Your task to perform on an android device: turn off picture-in-picture Image 0: 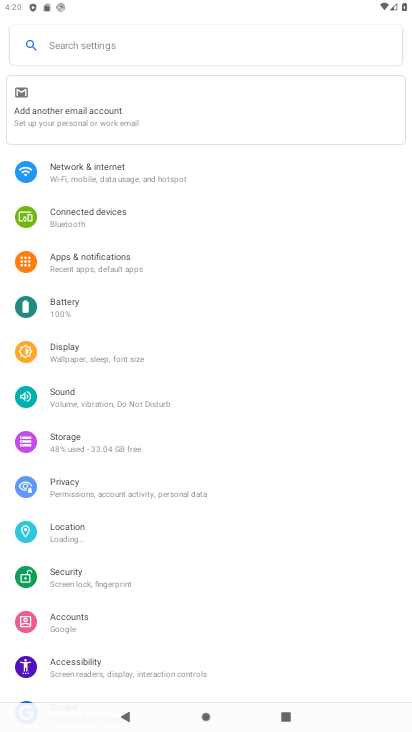
Step 0: press home button
Your task to perform on an android device: turn off picture-in-picture Image 1: 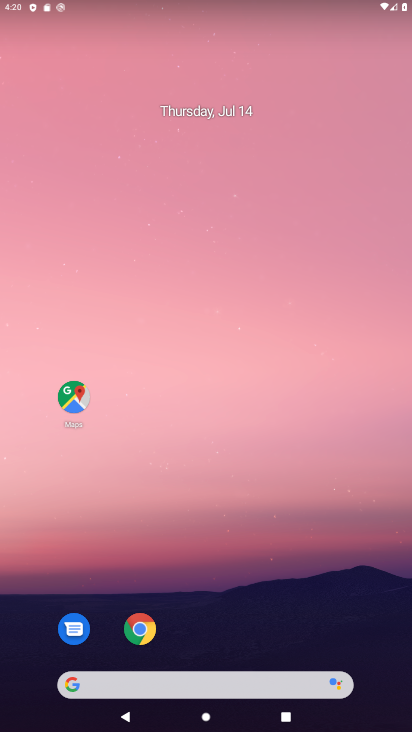
Step 1: drag from (253, 645) to (291, 144)
Your task to perform on an android device: turn off picture-in-picture Image 2: 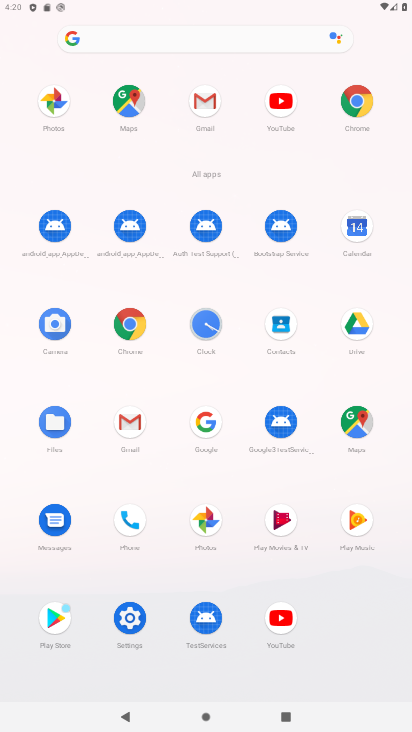
Step 2: click (132, 635)
Your task to perform on an android device: turn off picture-in-picture Image 3: 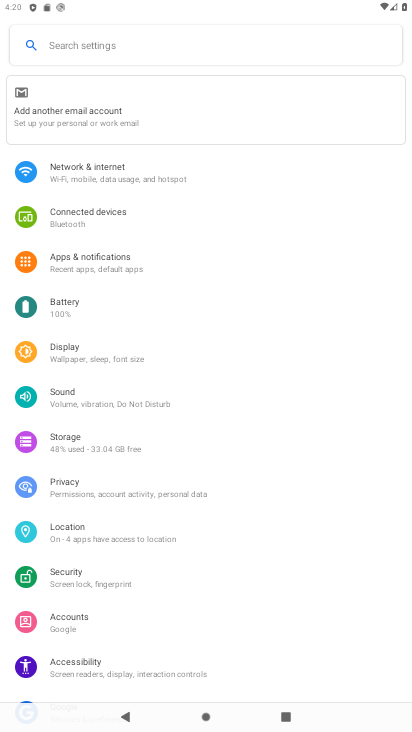
Step 3: click (119, 268)
Your task to perform on an android device: turn off picture-in-picture Image 4: 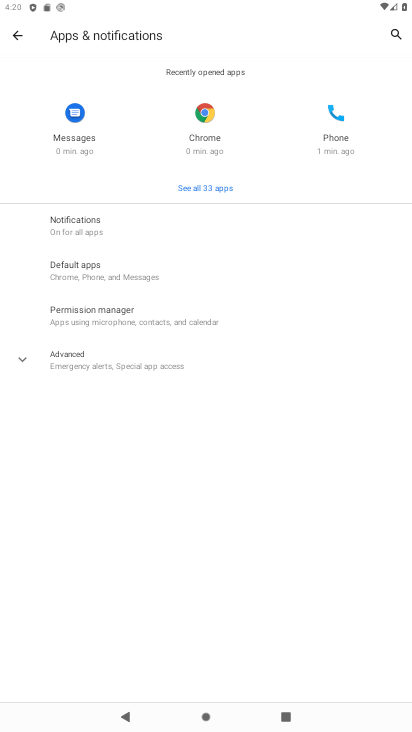
Step 4: click (95, 359)
Your task to perform on an android device: turn off picture-in-picture Image 5: 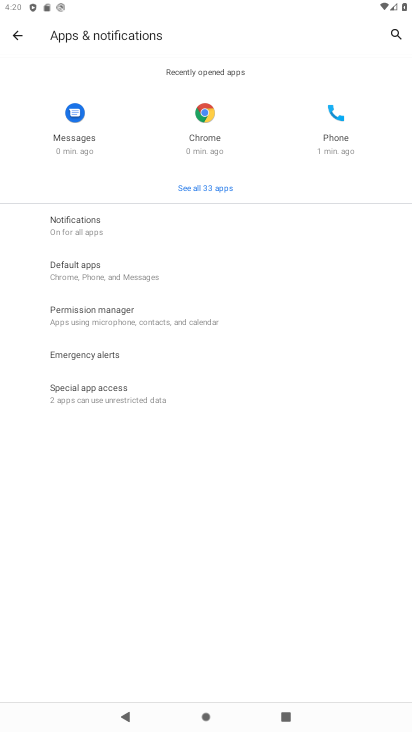
Step 5: click (119, 384)
Your task to perform on an android device: turn off picture-in-picture Image 6: 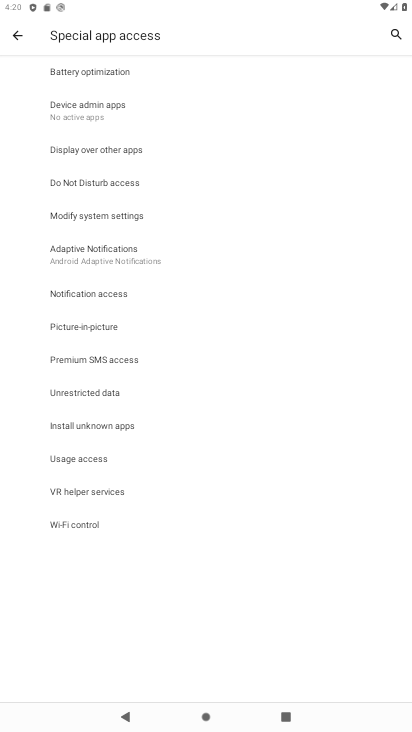
Step 6: click (111, 330)
Your task to perform on an android device: turn off picture-in-picture Image 7: 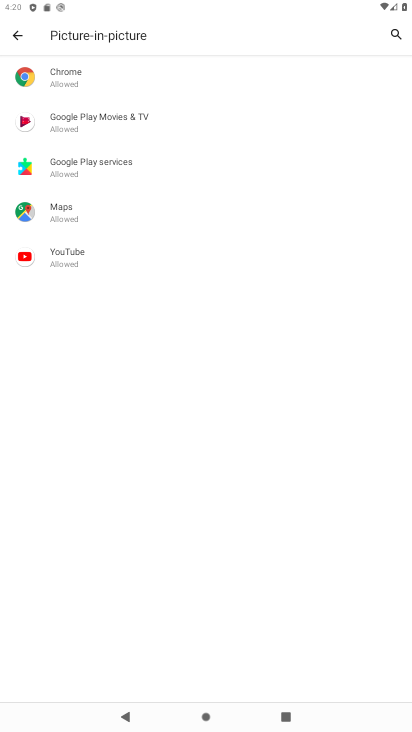
Step 7: click (108, 89)
Your task to perform on an android device: turn off picture-in-picture Image 8: 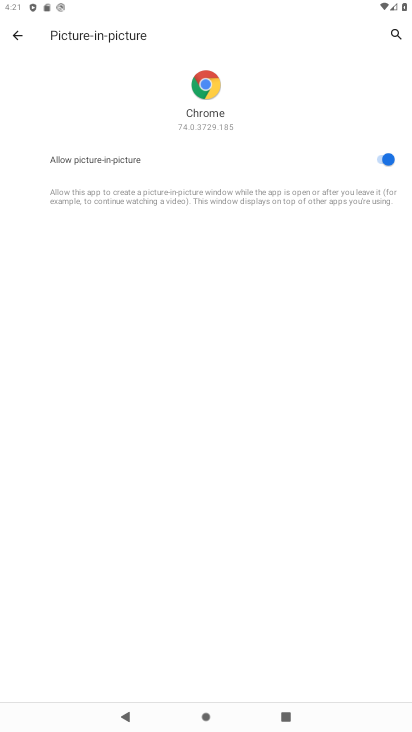
Step 8: click (378, 156)
Your task to perform on an android device: turn off picture-in-picture Image 9: 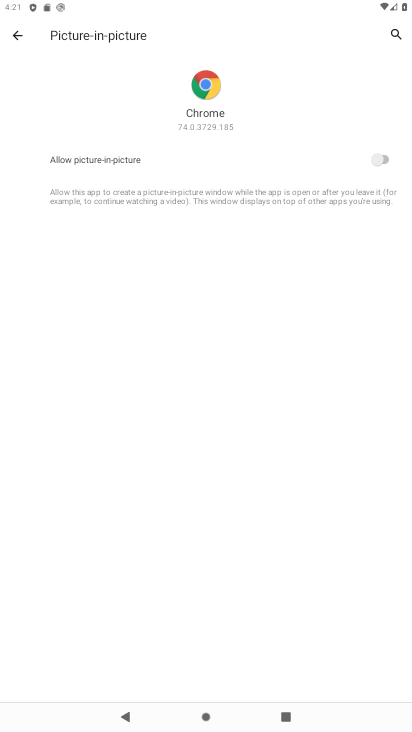
Step 9: press back button
Your task to perform on an android device: turn off picture-in-picture Image 10: 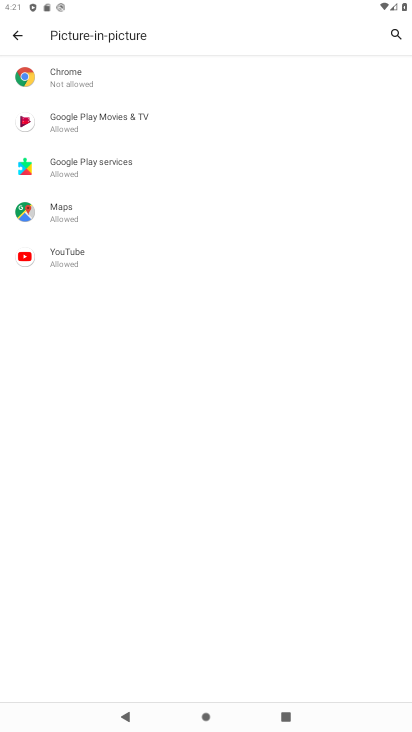
Step 10: click (119, 120)
Your task to perform on an android device: turn off picture-in-picture Image 11: 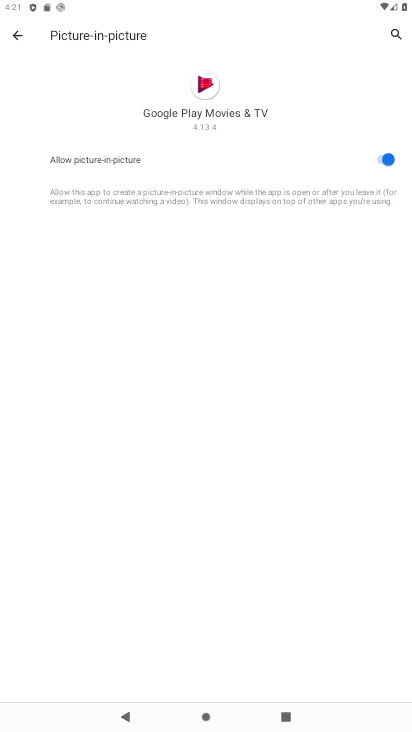
Step 11: click (376, 153)
Your task to perform on an android device: turn off picture-in-picture Image 12: 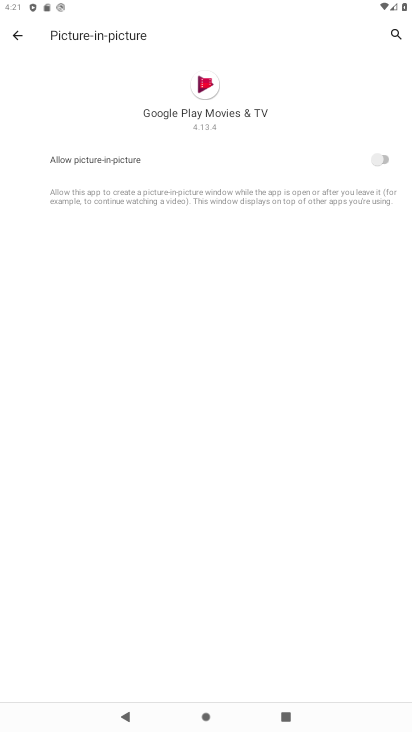
Step 12: press back button
Your task to perform on an android device: turn off picture-in-picture Image 13: 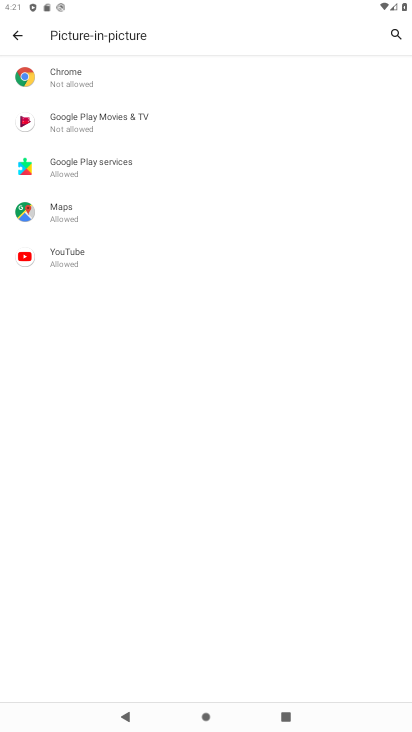
Step 13: click (159, 177)
Your task to perform on an android device: turn off picture-in-picture Image 14: 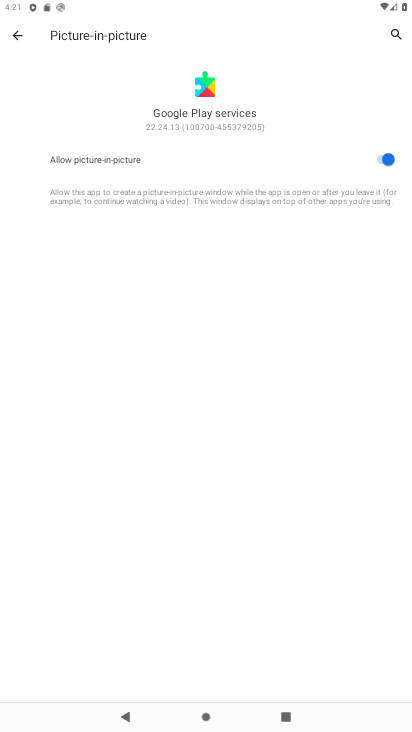
Step 14: click (387, 163)
Your task to perform on an android device: turn off picture-in-picture Image 15: 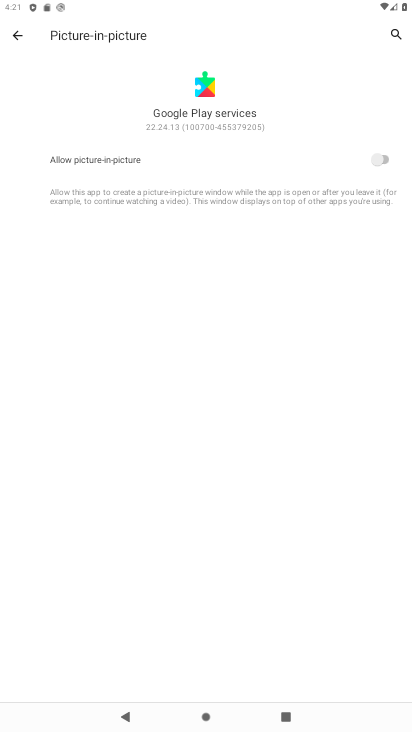
Step 15: press back button
Your task to perform on an android device: turn off picture-in-picture Image 16: 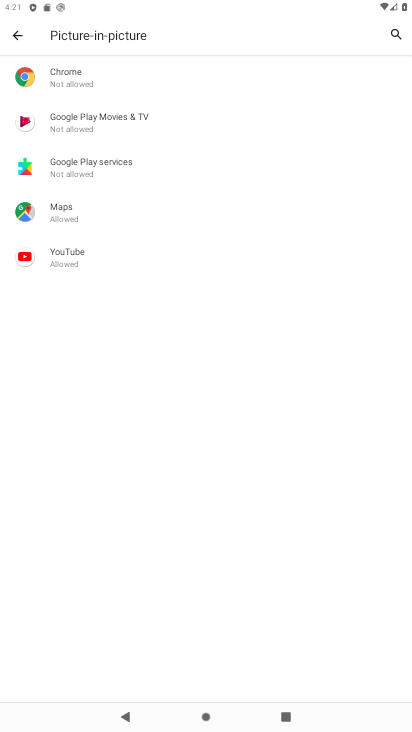
Step 16: click (104, 218)
Your task to perform on an android device: turn off picture-in-picture Image 17: 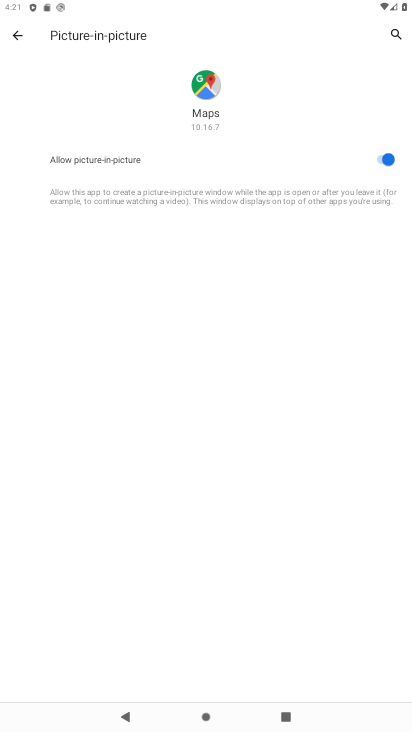
Step 17: click (368, 162)
Your task to perform on an android device: turn off picture-in-picture Image 18: 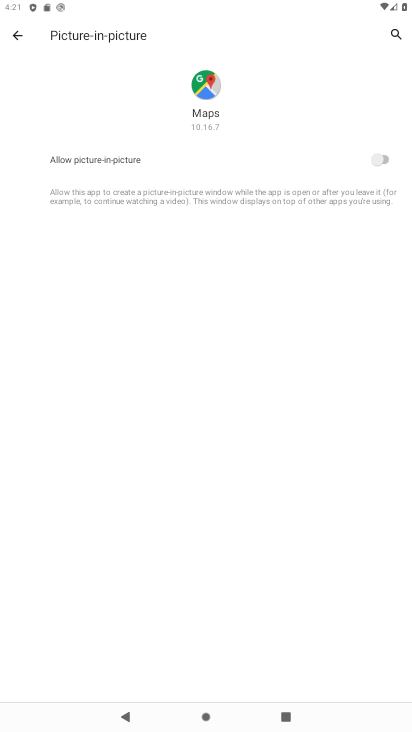
Step 18: press back button
Your task to perform on an android device: turn off picture-in-picture Image 19: 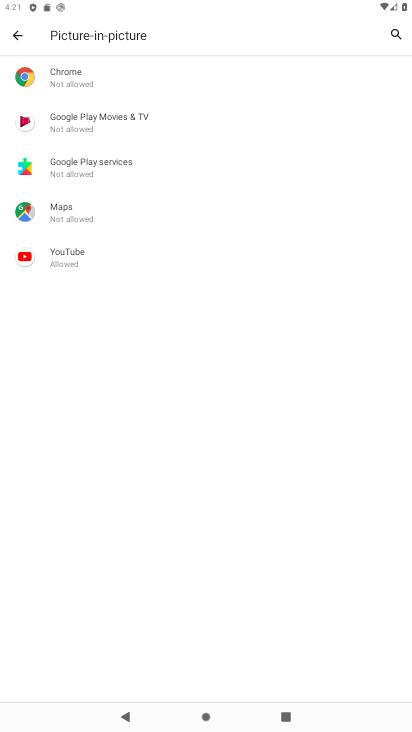
Step 19: click (177, 257)
Your task to perform on an android device: turn off picture-in-picture Image 20: 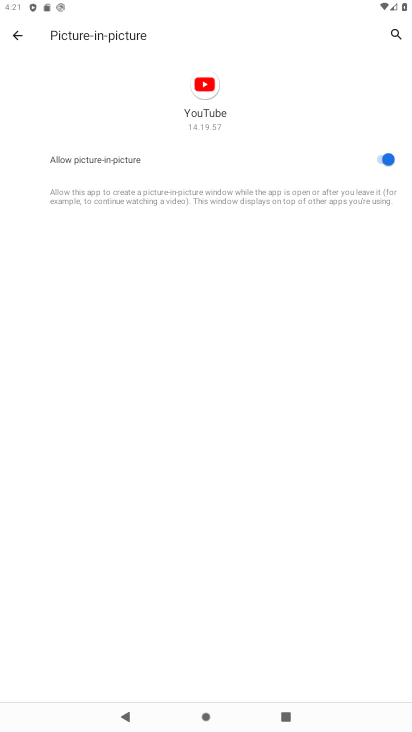
Step 20: click (384, 162)
Your task to perform on an android device: turn off picture-in-picture Image 21: 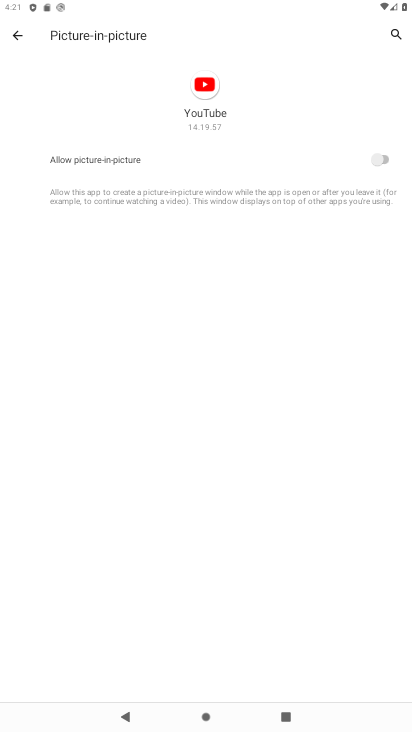
Step 21: task complete